Your task to perform on an android device: uninstall "Facebook" Image 0: 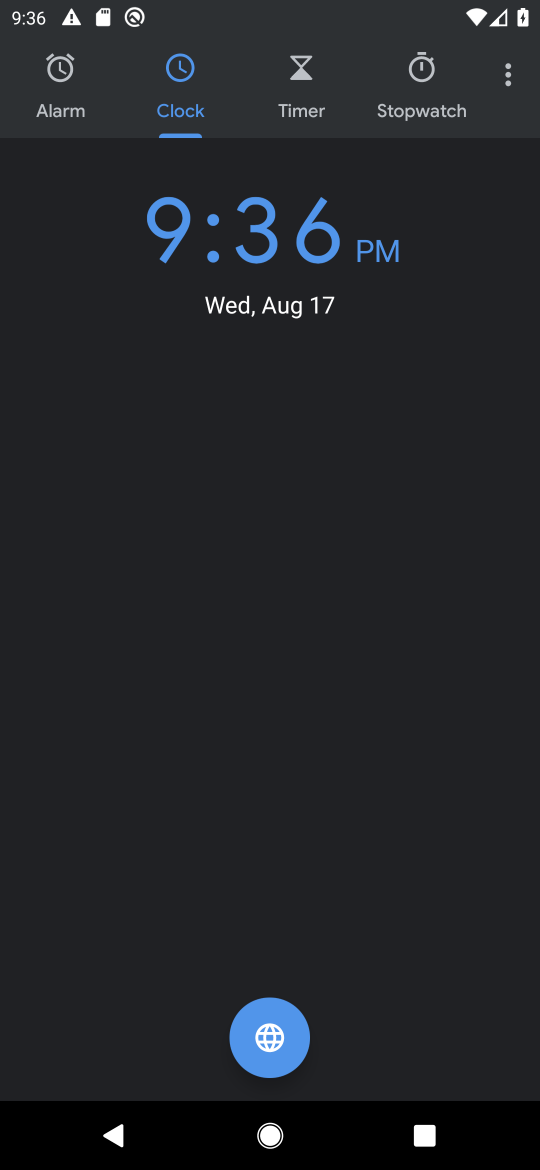
Step 0: press home button
Your task to perform on an android device: uninstall "Facebook" Image 1: 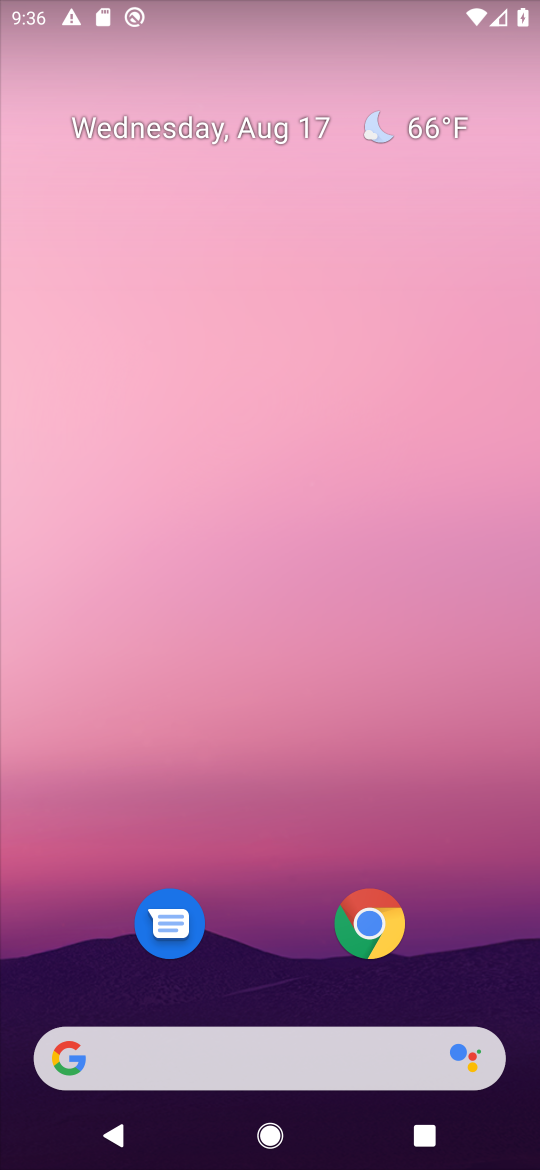
Step 1: drag from (258, 842) to (240, 180)
Your task to perform on an android device: uninstall "Facebook" Image 2: 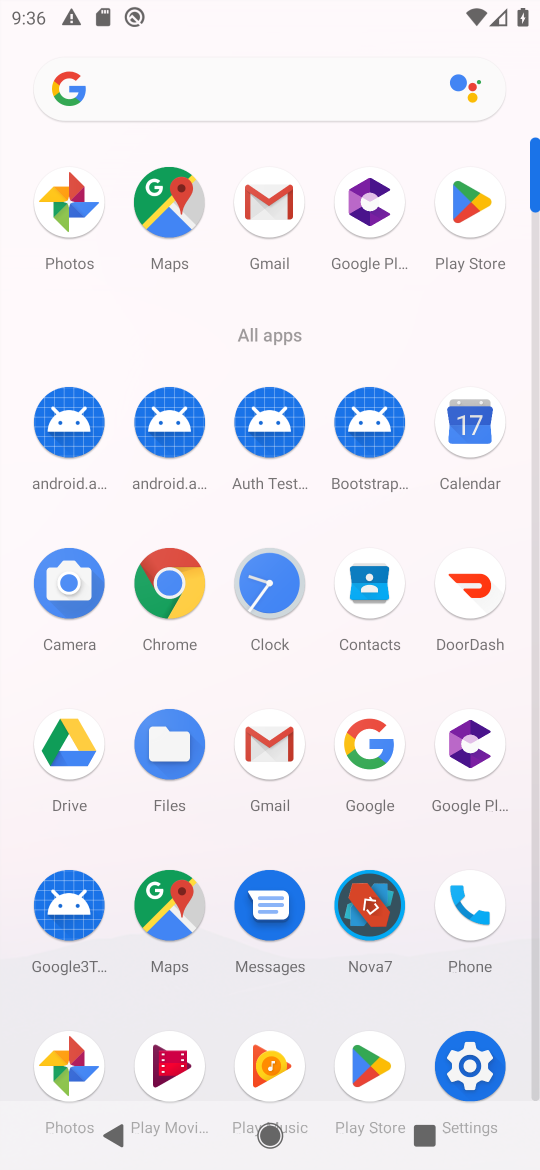
Step 2: click (489, 212)
Your task to perform on an android device: uninstall "Facebook" Image 3: 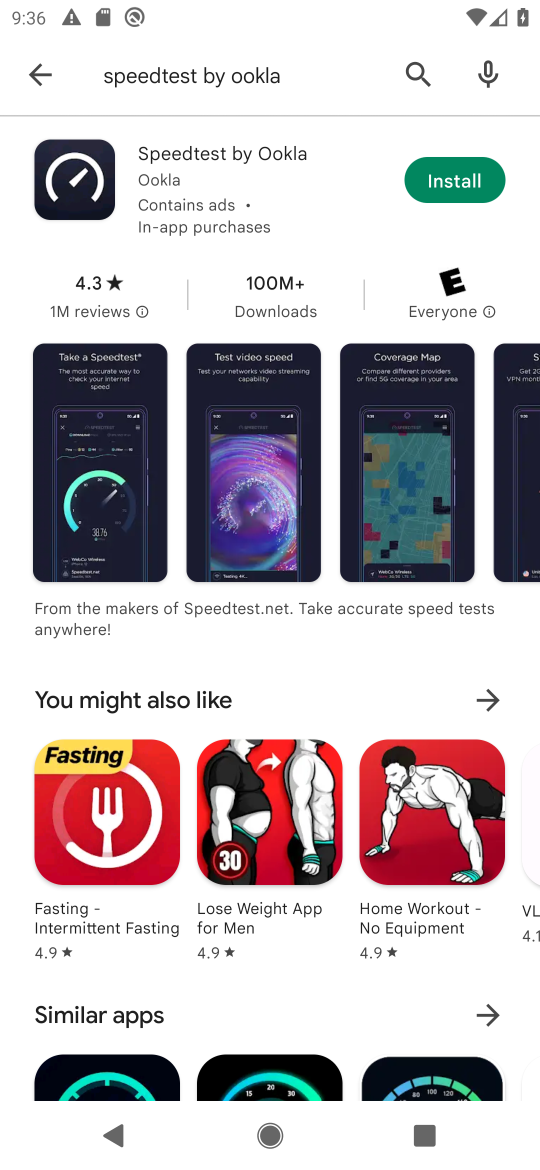
Step 3: click (423, 90)
Your task to perform on an android device: uninstall "Facebook" Image 4: 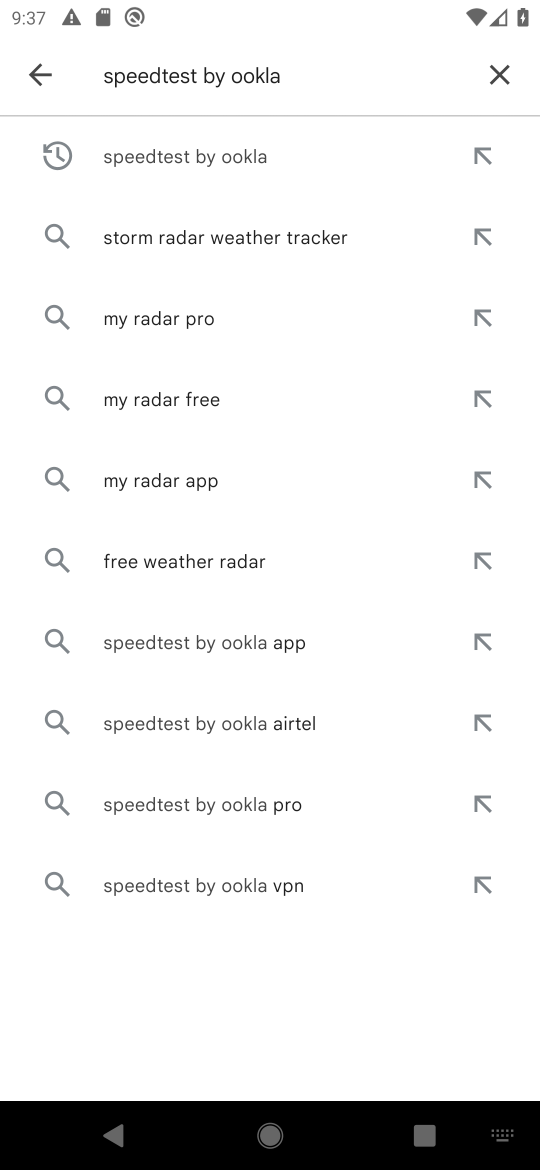
Step 4: click (505, 75)
Your task to perform on an android device: uninstall "Facebook" Image 5: 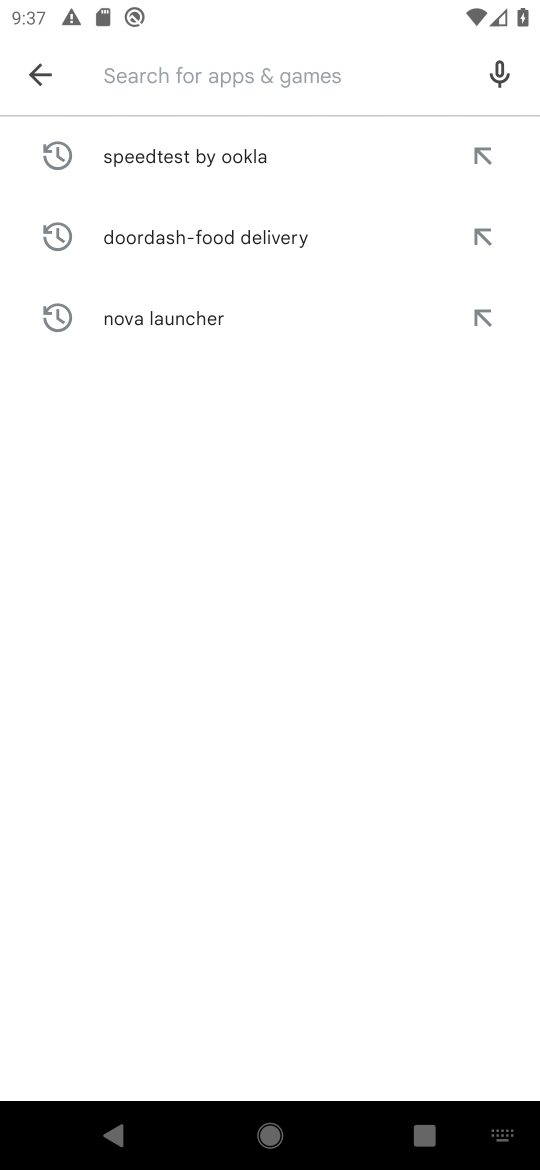
Step 5: type "facebook"
Your task to perform on an android device: uninstall "Facebook" Image 6: 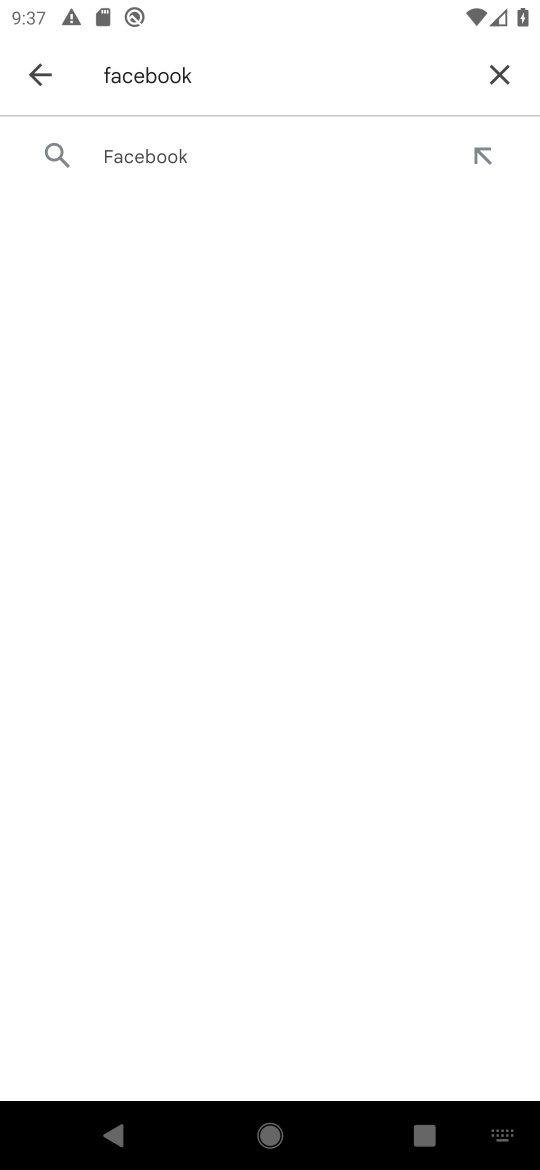
Step 6: click (139, 122)
Your task to perform on an android device: uninstall "Facebook" Image 7: 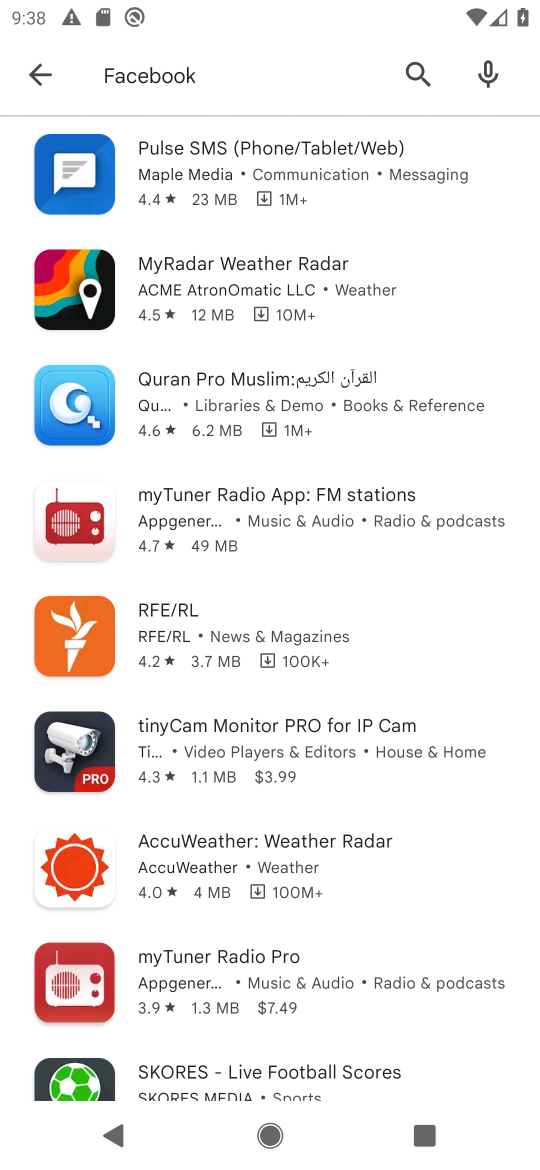
Step 7: task complete